Your task to perform on an android device: set default search engine in the chrome app Image 0: 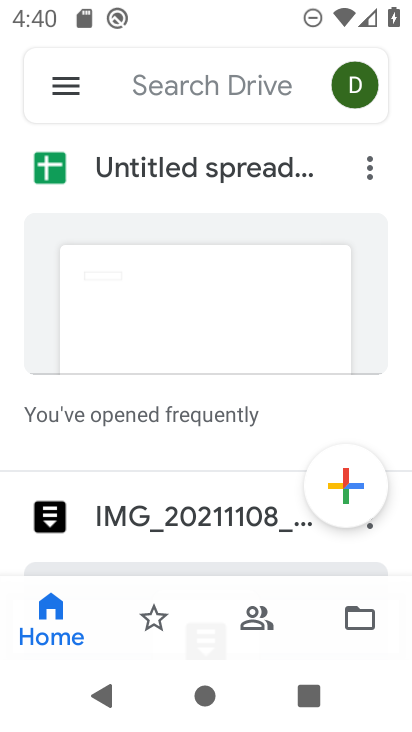
Step 0: press home button
Your task to perform on an android device: set default search engine in the chrome app Image 1: 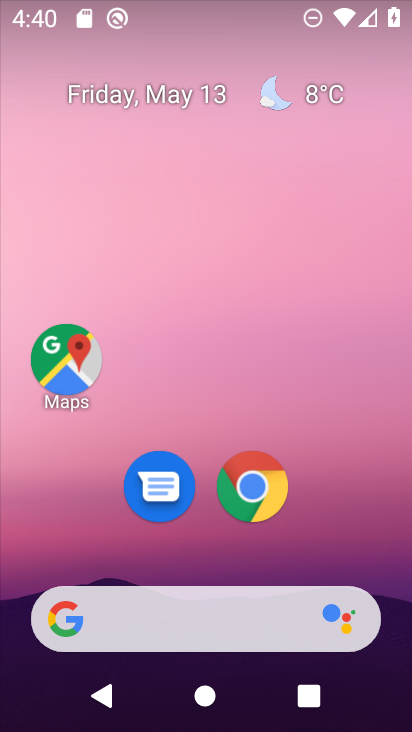
Step 1: click (213, 525)
Your task to perform on an android device: set default search engine in the chrome app Image 2: 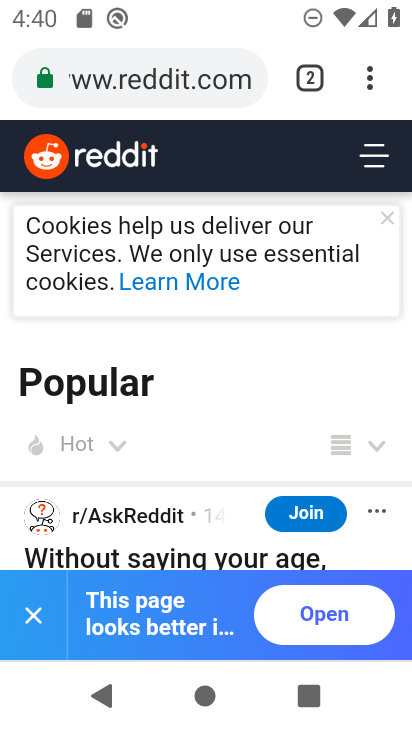
Step 2: click (366, 104)
Your task to perform on an android device: set default search engine in the chrome app Image 3: 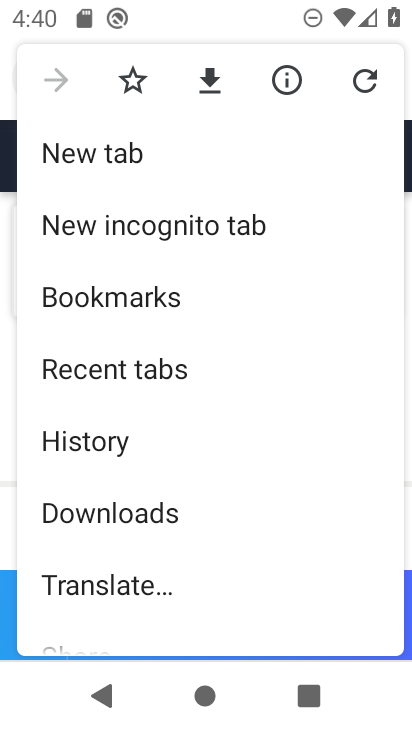
Step 3: drag from (205, 483) to (223, 216)
Your task to perform on an android device: set default search engine in the chrome app Image 4: 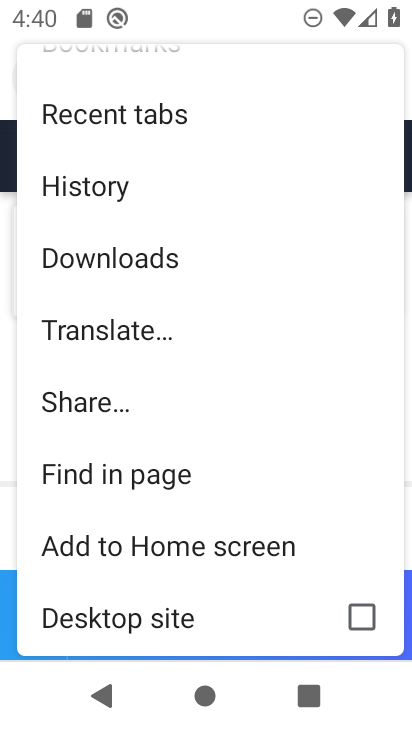
Step 4: drag from (218, 540) to (250, 388)
Your task to perform on an android device: set default search engine in the chrome app Image 5: 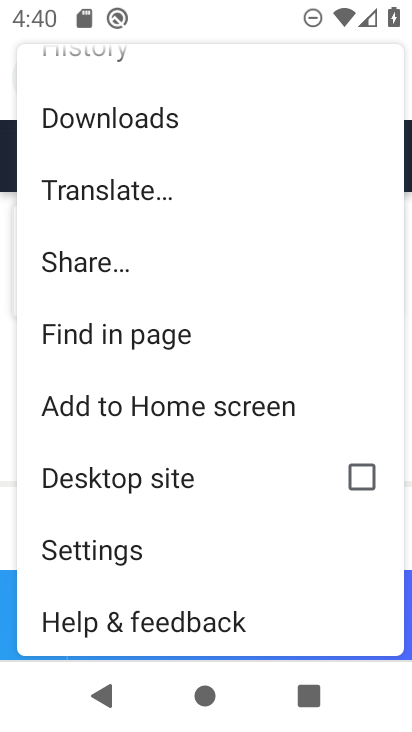
Step 5: click (205, 566)
Your task to perform on an android device: set default search engine in the chrome app Image 6: 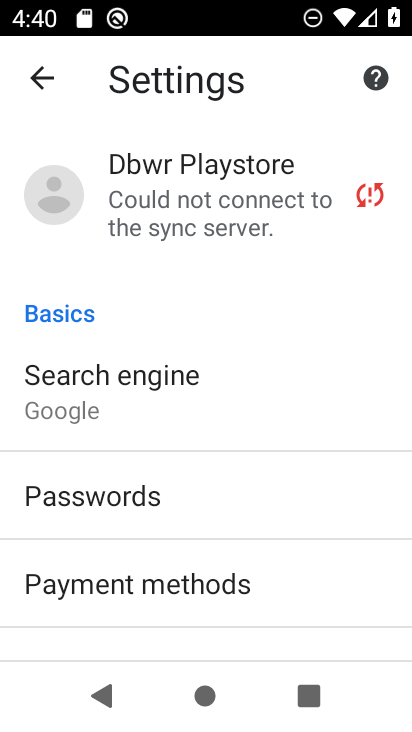
Step 6: click (160, 403)
Your task to perform on an android device: set default search engine in the chrome app Image 7: 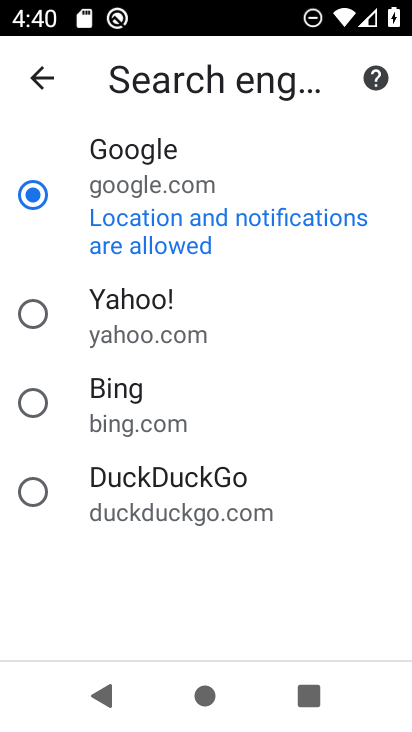
Step 7: click (160, 403)
Your task to perform on an android device: set default search engine in the chrome app Image 8: 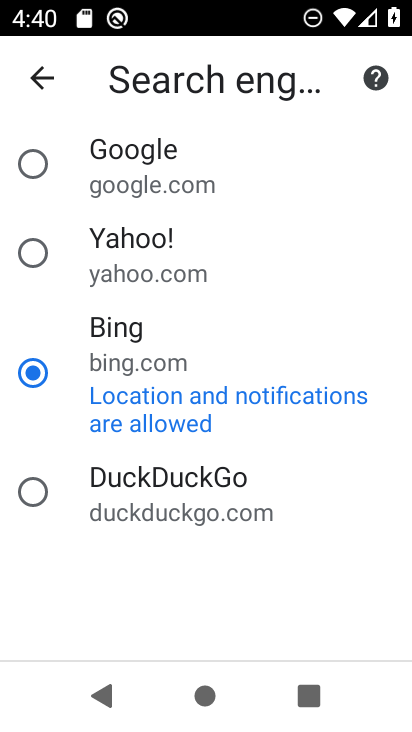
Step 8: task complete